Your task to perform on an android device: Go to calendar. Show me events next week Image 0: 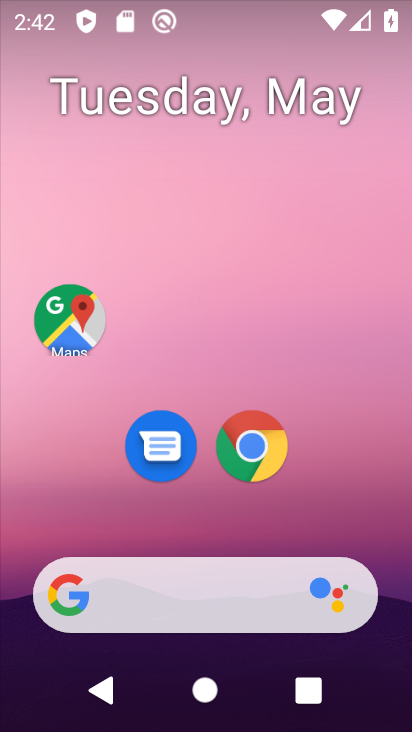
Step 0: drag from (325, 538) to (313, 150)
Your task to perform on an android device: Go to calendar. Show me events next week Image 1: 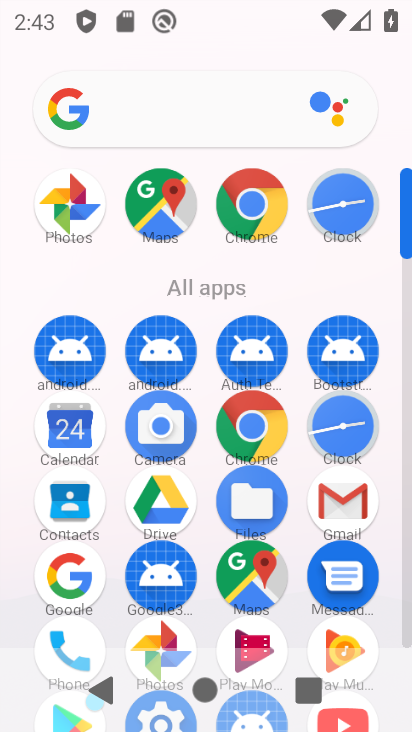
Step 1: click (70, 422)
Your task to perform on an android device: Go to calendar. Show me events next week Image 2: 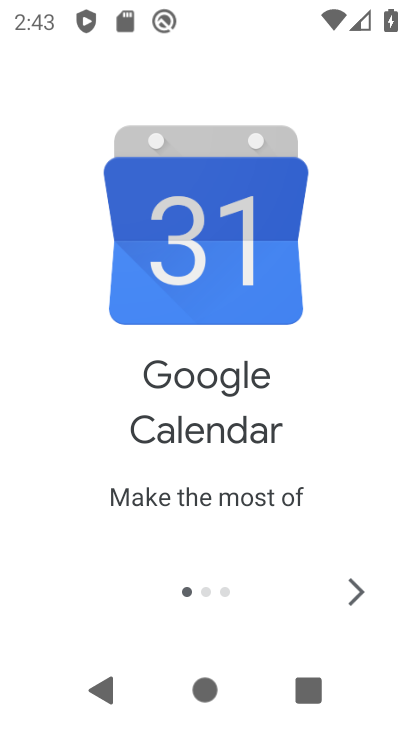
Step 2: click (355, 595)
Your task to perform on an android device: Go to calendar. Show me events next week Image 3: 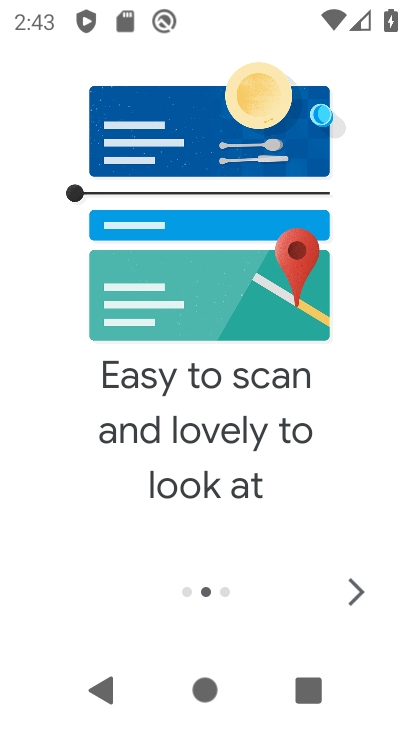
Step 3: click (355, 595)
Your task to perform on an android device: Go to calendar. Show me events next week Image 4: 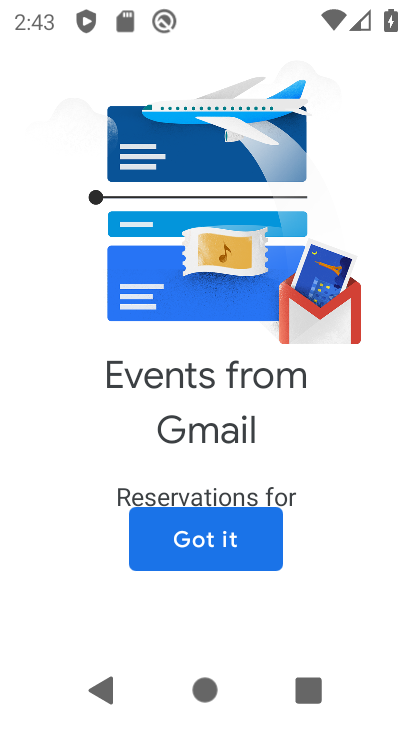
Step 4: click (253, 551)
Your task to perform on an android device: Go to calendar. Show me events next week Image 5: 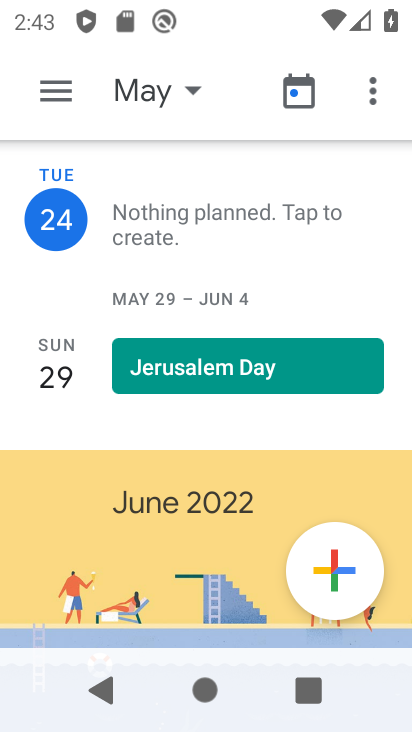
Step 5: click (60, 85)
Your task to perform on an android device: Go to calendar. Show me events next week Image 6: 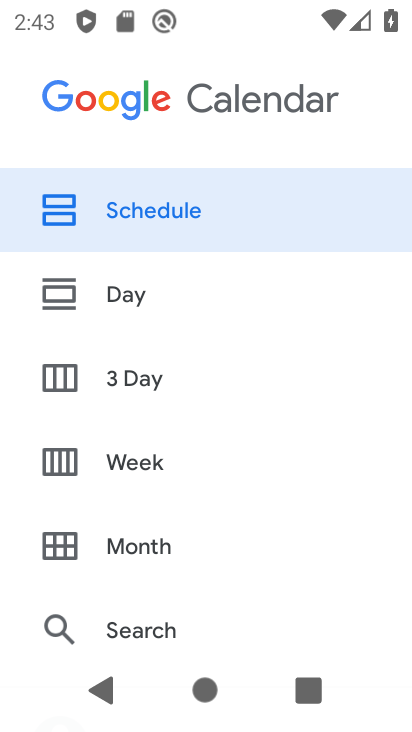
Step 6: click (176, 455)
Your task to perform on an android device: Go to calendar. Show me events next week Image 7: 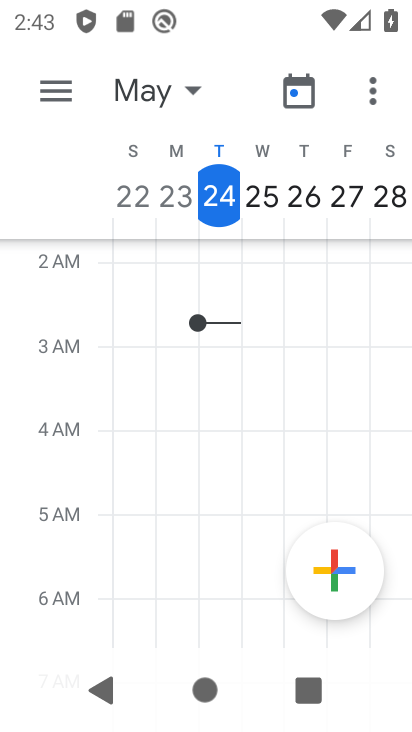
Step 7: click (180, 85)
Your task to perform on an android device: Go to calendar. Show me events next week Image 8: 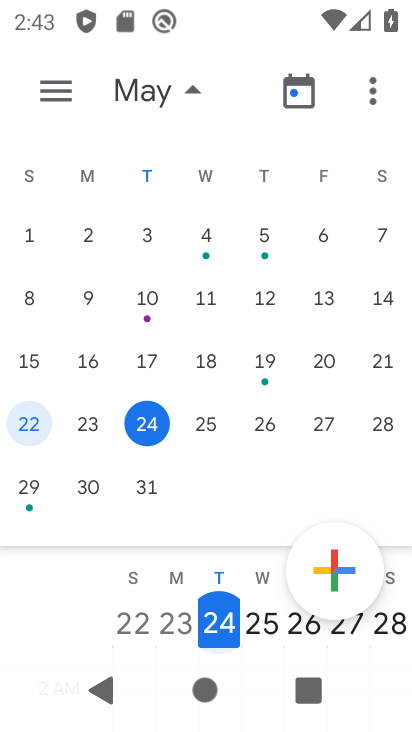
Step 8: click (80, 484)
Your task to perform on an android device: Go to calendar. Show me events next week Image 9: 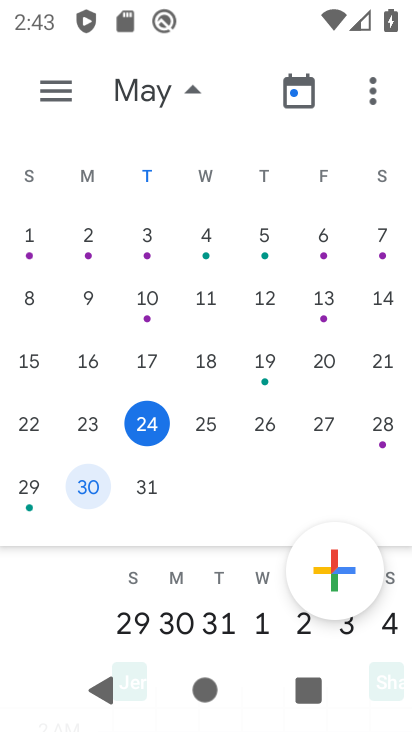
Step 9: task complete